Your task to perform on an android device: Go to Wikipedia Image 0: 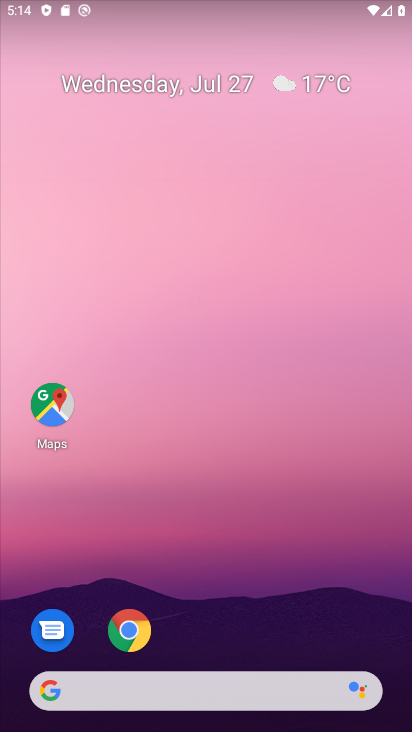
Step 0: drag from (235, 645) to (273, 90)
Your task to perform on an android device: Go to Wikipedia Image 1: 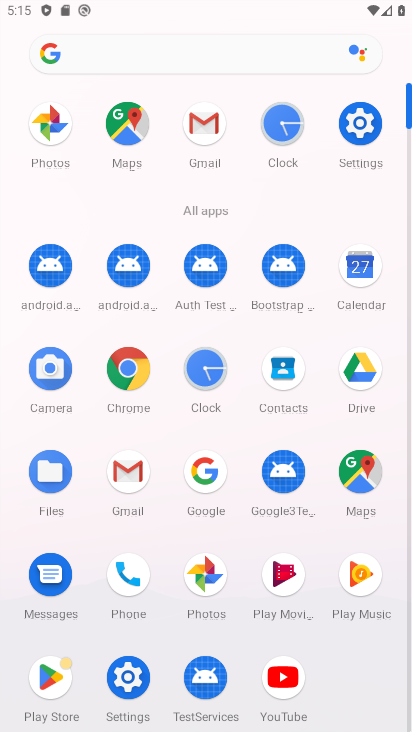
Step 1: click (124, 373)
Your task to perform on an android device: Go to Wikipedia Image 2: 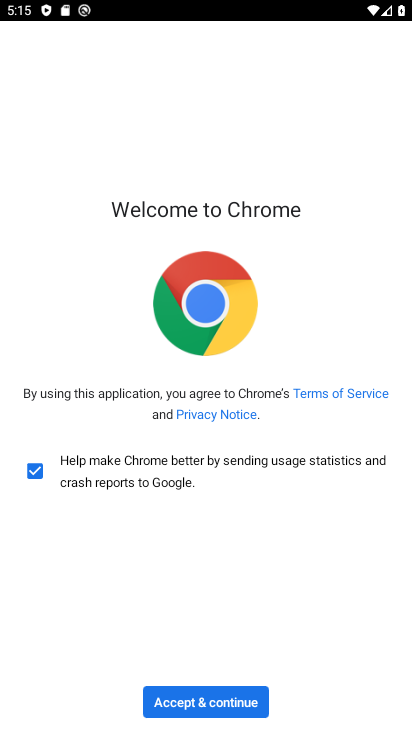
Step 2: click (198, 693)
Your task to perform on an android device: Go to Wikipedia Image 3: 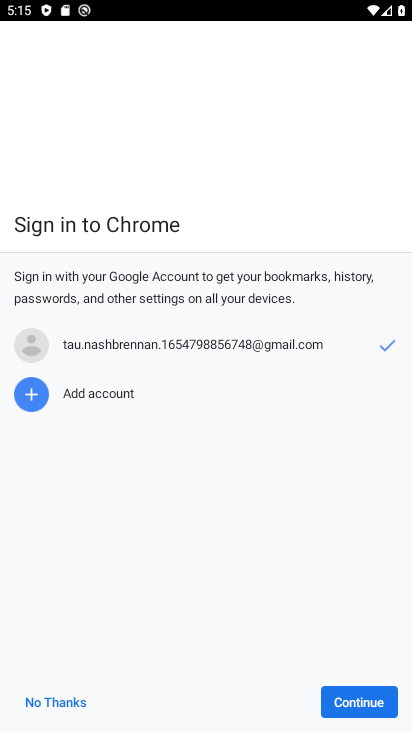
Step 3: click (371, 699)
Your task to perform on an android device: Go to Wikipedia Image 4: 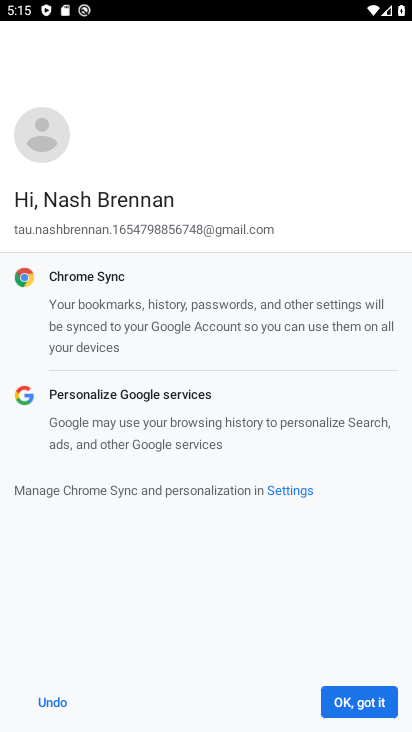
Step 4: click (370, 697)
Your task to perform on an android device: Go to Wikipedia Image 5: 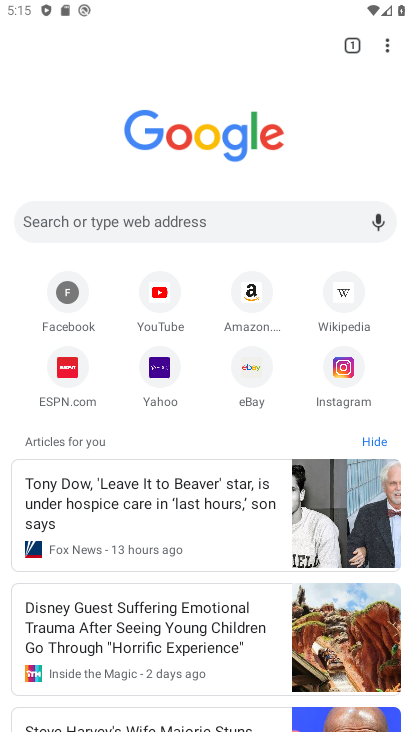
Step 5: click (345, 288)
Your task to perform on an android device: Go to Wikipedia Image 6: 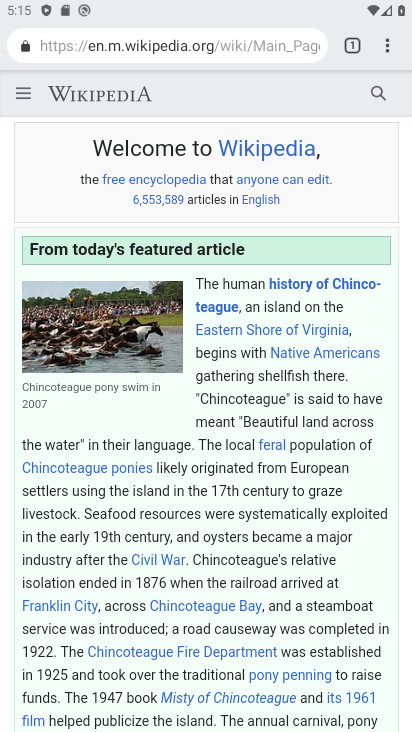
Step 6: task complete